Your task to perform on an android device: create a new album in the google photos Image 0: 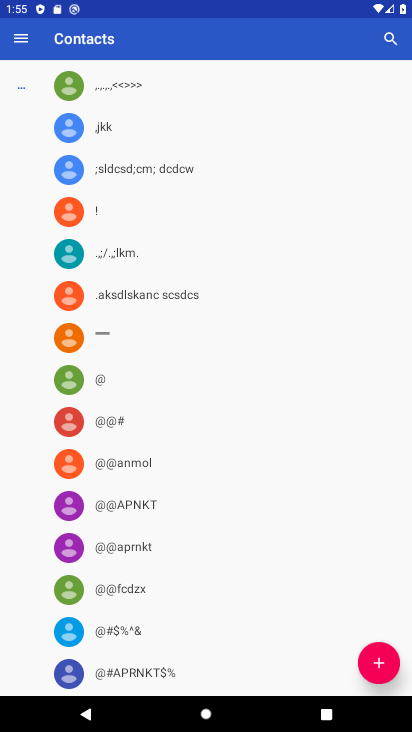
Step 0: press home button
Your task to perform on an android device: create a new album in the google photos Image 1: 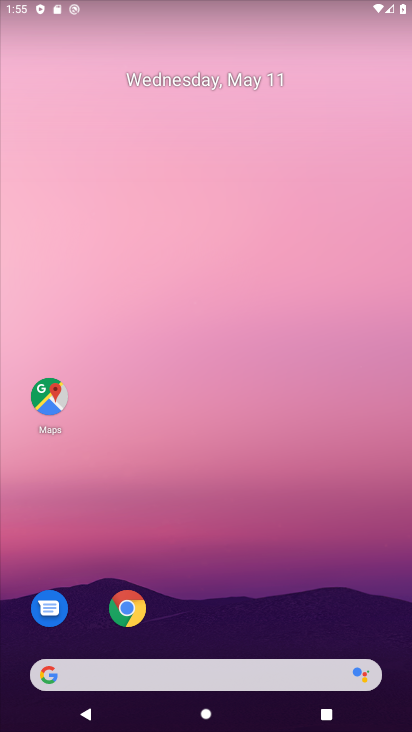
Step 1: drag from (248, 614) to (299, 224)
Your task to perform on an android device: create a new album in the google photos Image 2: 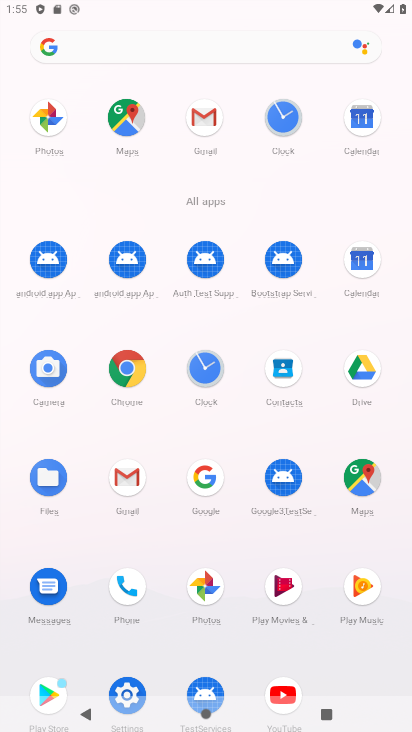
Step 2: click (216, 598)
Your task to perform on an android device: create a new album in the google photos Image 3: 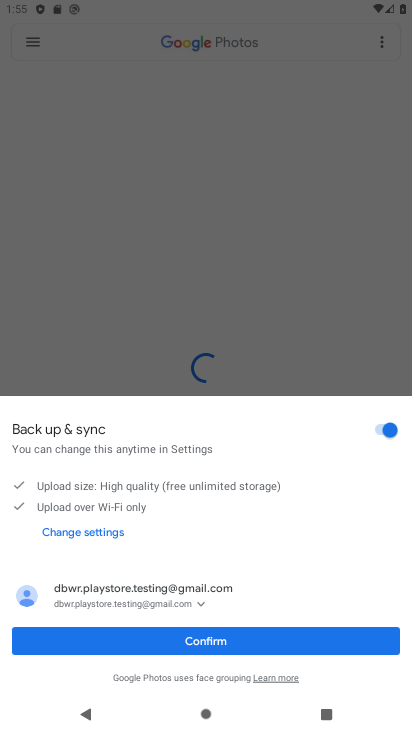
Step 3: click (236, 640)
Your task to perform on an android device: create a new album in the google photos Image 4: 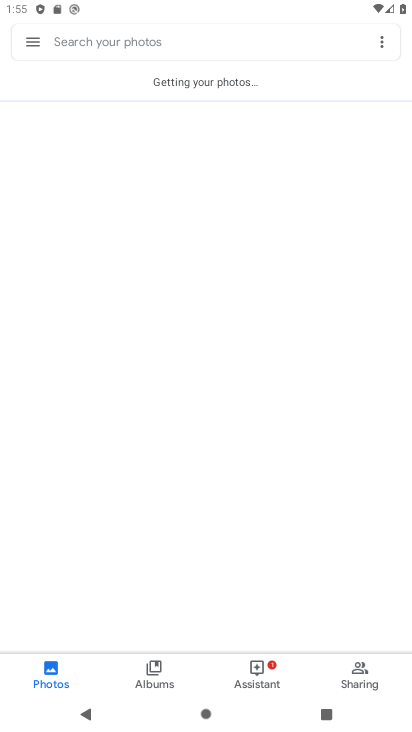
Step 4: click (387, 42)
Your task to perform on an android device: create a new album in the google photos Image 5: 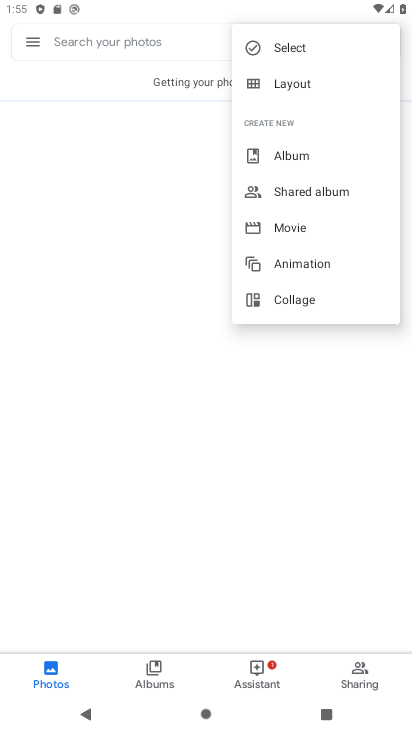
Step 5: click (326, 151)
Your task to perform on an android device: create a new album in the google photos Image 6: 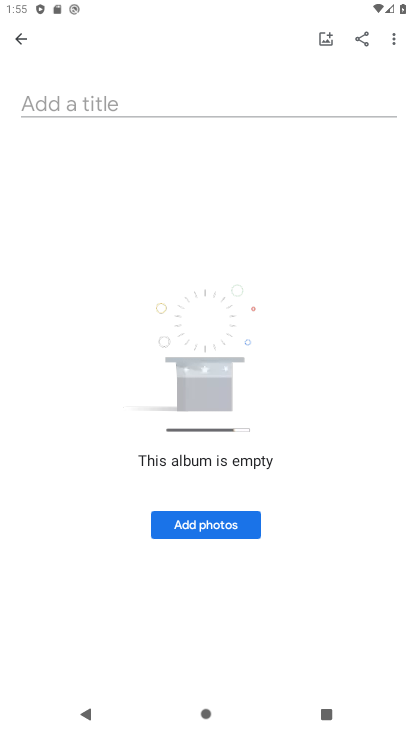
Step 6: click (220, 527)
Your task to perform on an android device: create a new album in the google photos Image 7: 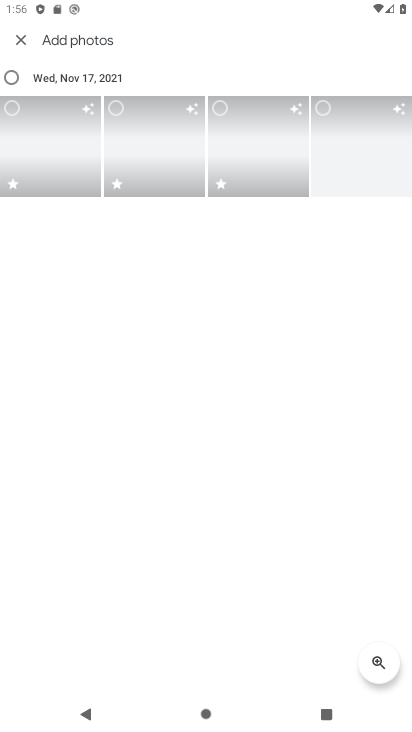
Step 7: click (13, 41)
Your task to perform on an android device: create a new album in the google photos Image 8: 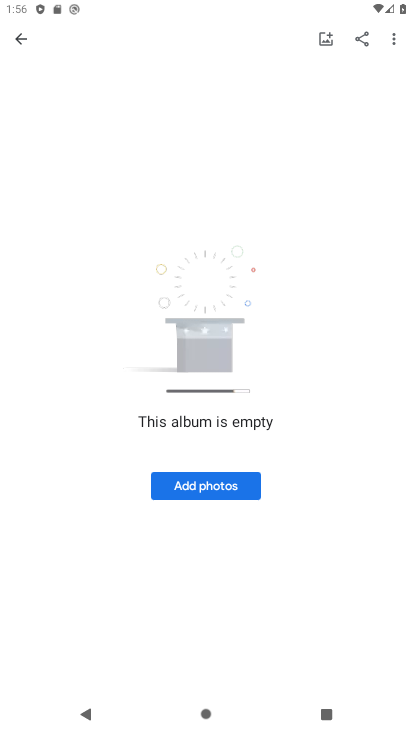
Step 8: click (224, 494)
Your task to perform on an android device: create a new album in the google photos Image 9: 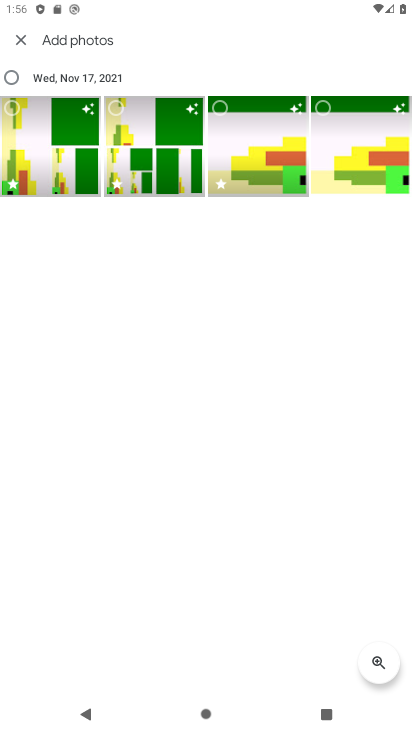
Step 9: click (64, 143)
Your task to perform on an android device: create a new album in the google photos Image 10: 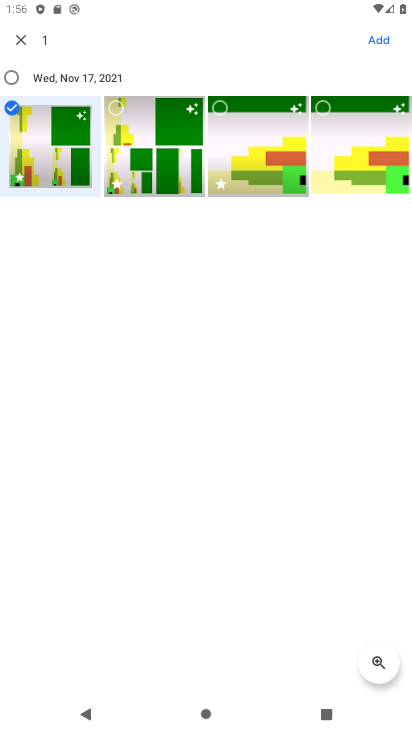
Step 10: click (371, 36)
Your task to perform on an android device: create a new album in the google photos Image 11: 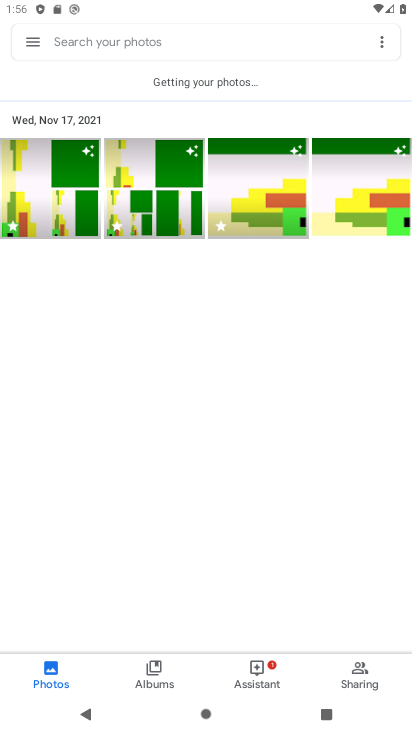
Step 11: click (154, 671)
Your task to perform on an android device: create a new album in the google photos Image 12: 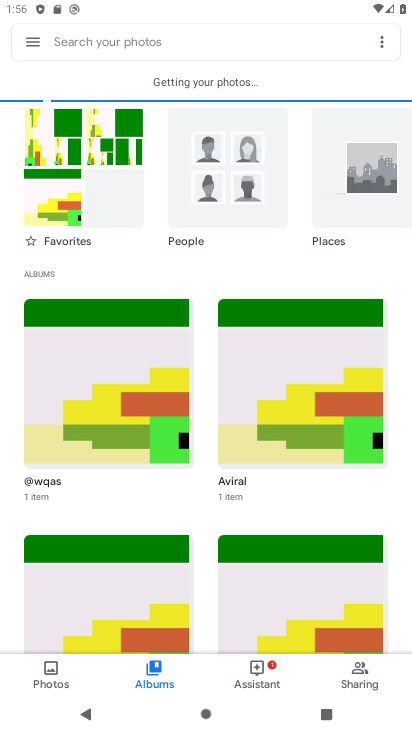
Step 12: task complete